Your task to perform on an android device: change notification settings in the gmail app Image 0: 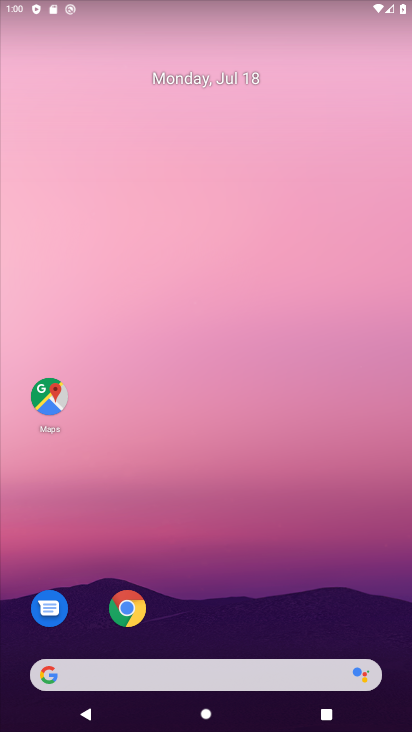
Step 0: drag from (274, 398) to (254, 61)
Your task to perform on an android device: change notification settings in the gmail app Image 1: 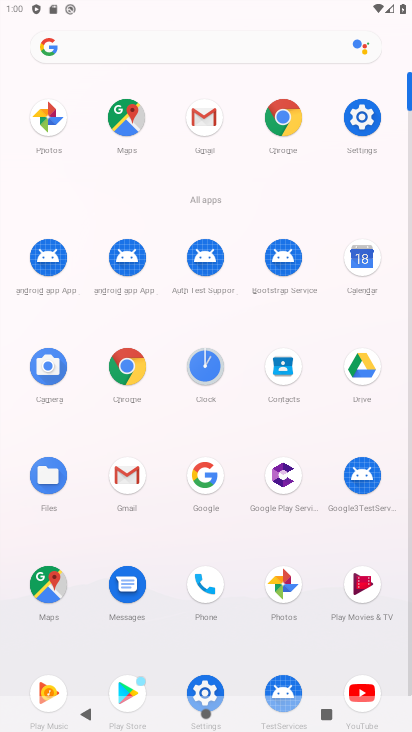
Step 1: click (202, 115)
Your task to perform on an android device: change notification settings in the gmail app Image 2: 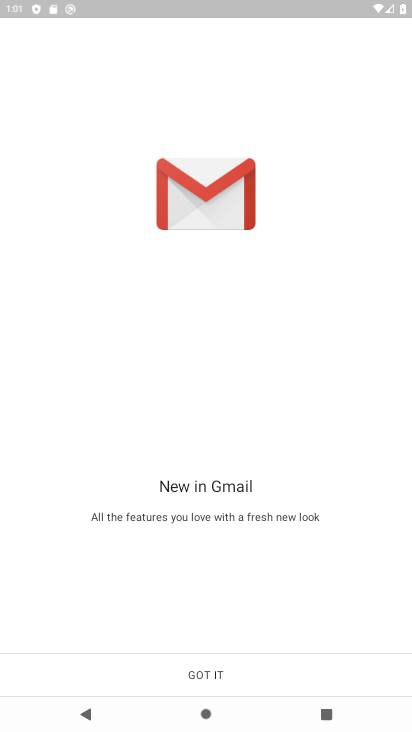
Step 2: click (211, 688)
Your task to perform on an android device: change notification settings in the gmail app Image 3: 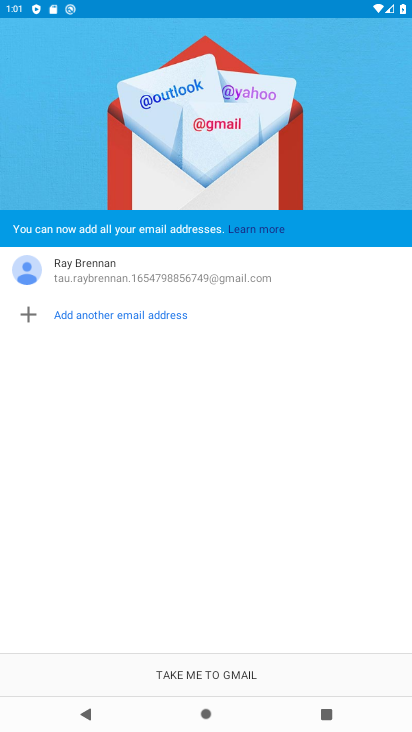
Step 3: click (250, 672)
Your task to perform on an android device: change notification settings in the gmail app Image 4: 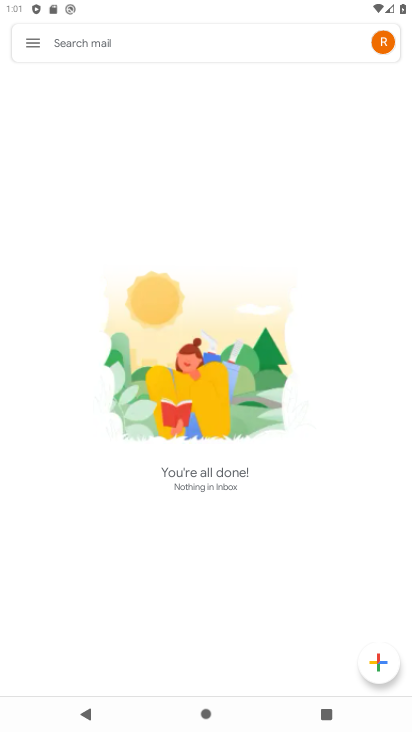
Step 4: click (34, 37)
Your task to perform on an android device: change notification settings in the gmail app Image 5: 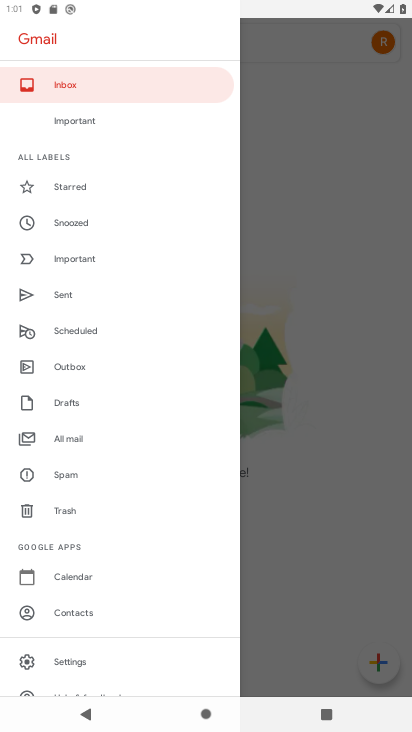
Step 5: click (91, 655)
Your task to perform on an android device: change notification settings in the gmail app Image 6: 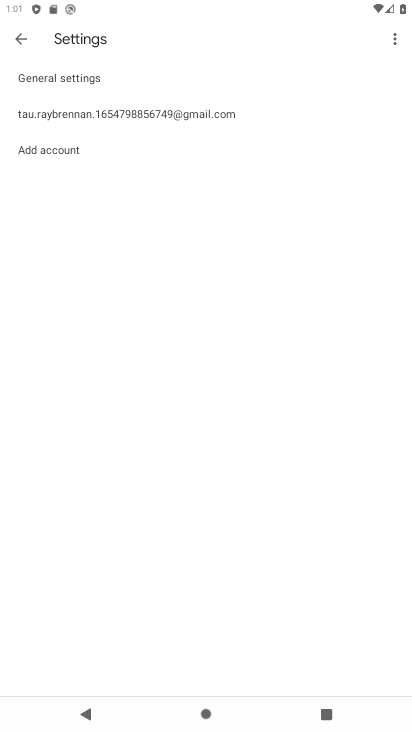
Step 6: click (223, 125)
Your task to perform on an android device: change notification settings in the gmail app Image 7: 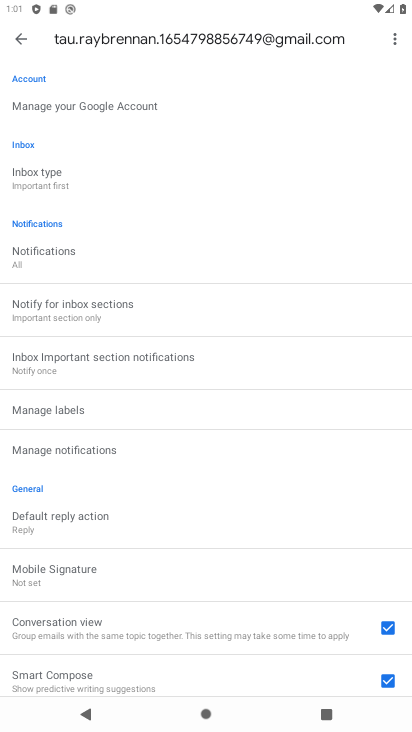
Step 7: click (132, 446)
Your task to perform on an android device: change notification settings in the gmail app Image 8: 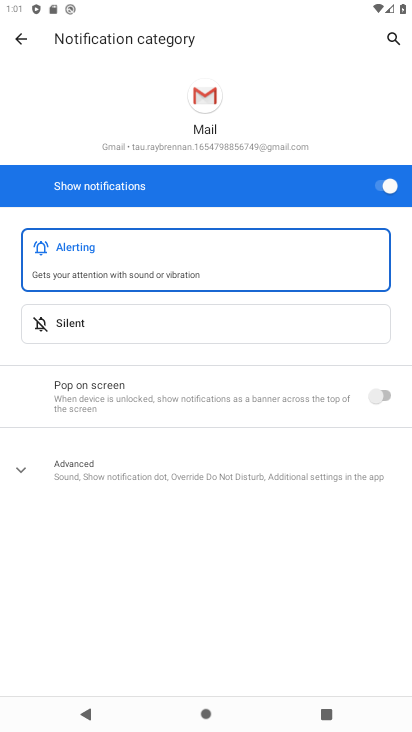
Step 8: click (335, 313)
Your task to perform on an android device: change notification settings in the gmail app Image 9: 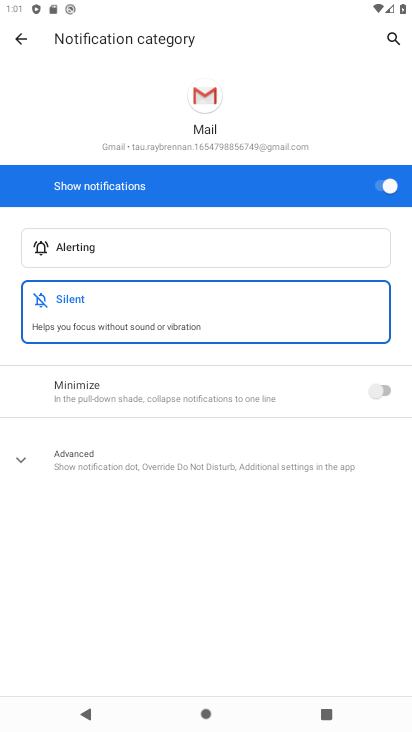
Step 9: click (379, 401)
Your task to perform on an android device: change notification settings in the gmail app Image 10: 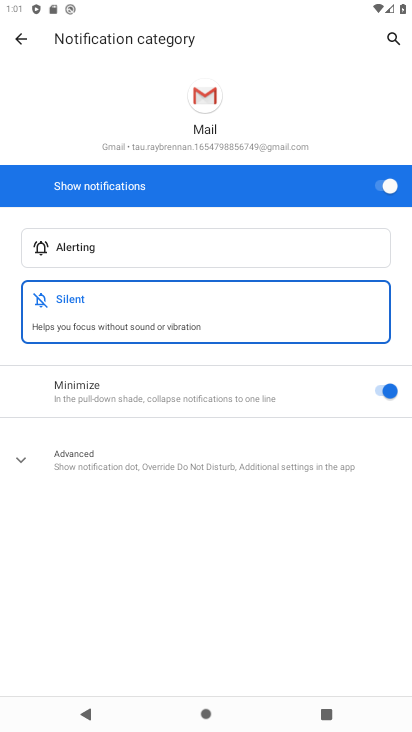
Step 10: task complete